Your task to perform on an android device: What's on my calendar today? Image 0: 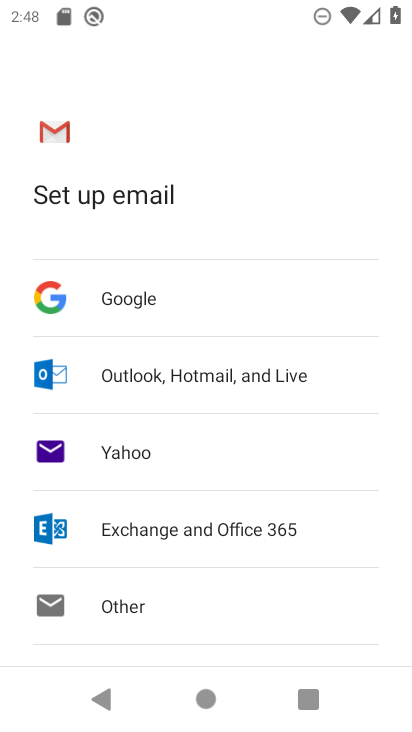
Step 0: press home button
Your task to perform on an android device: What's on my calendar today? Image 1: 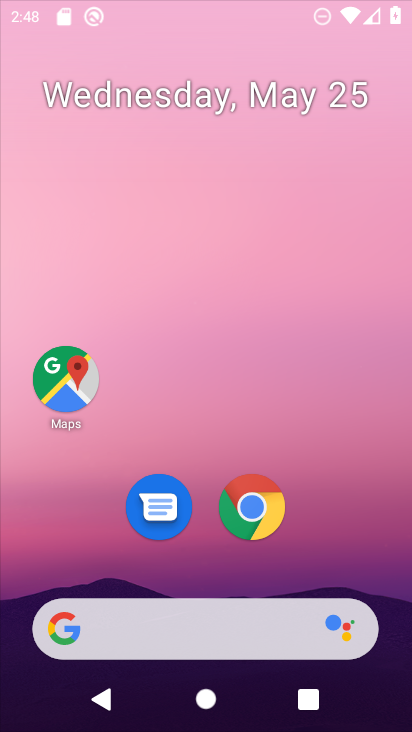
Step 1: drag from (167, 644) to (262, 175)
Your task to perform on an android device: What's on my calendar today? Image 2: 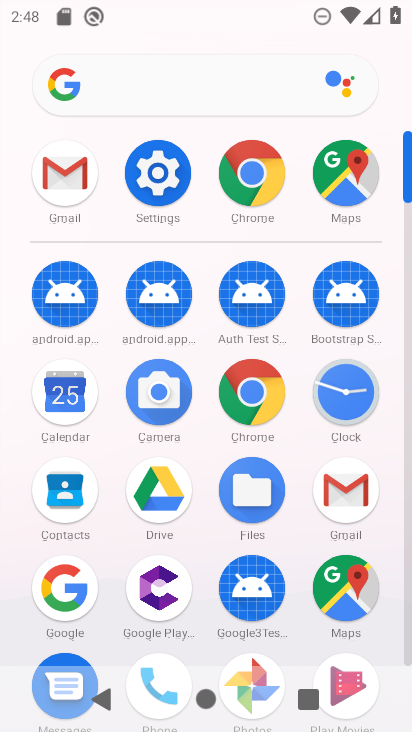
Step 2: click (68, 401)
Your task to perform on an android device: What's on my calendar today? Image 3: 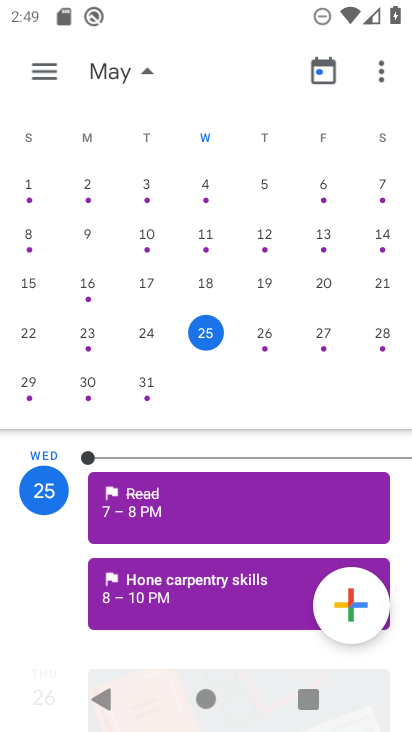
Step 3: task complete